Your task to perform on an android device: open sync settings in chrome Image 0: 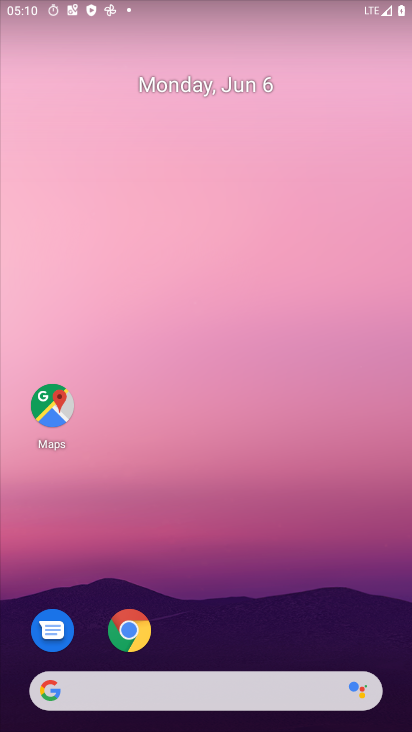
Step 0: drag from (238, 620) to (256, 70)
Your task to perform on an android device: open sync settings in chrome Image 1: 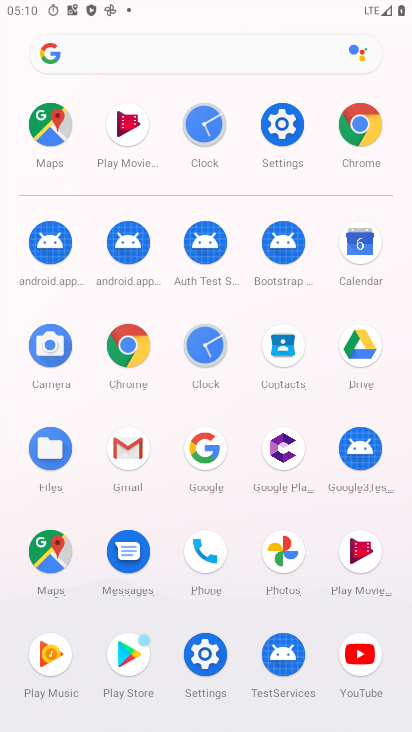
Step 1: click (137, 350)
Your task to perform on an android device: open sync settings in chrome Image 2: 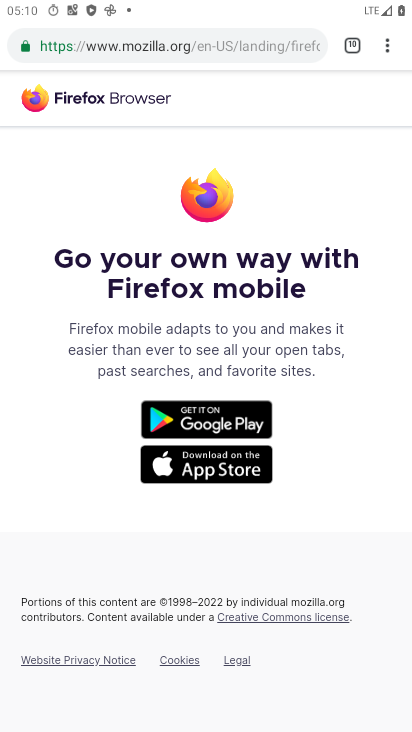
Step 2: drag from (383, 38) to (242, 547)
Your task to perform on an android device: open sync settings in chrome Image 3: 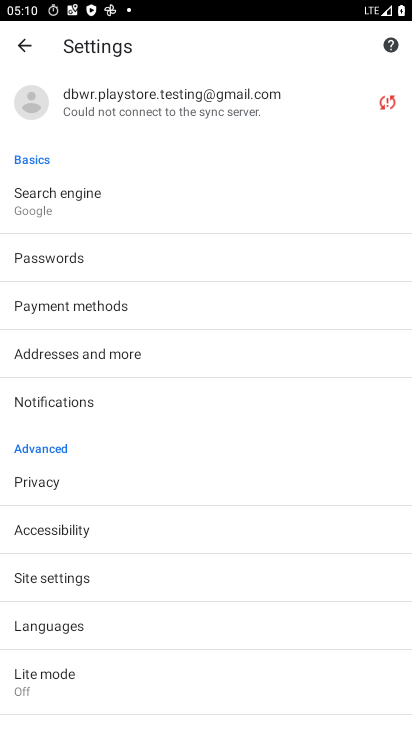
Step 3: click (42, 99)
Your task to perform on an android device: open sync settings in chrome Image 4: 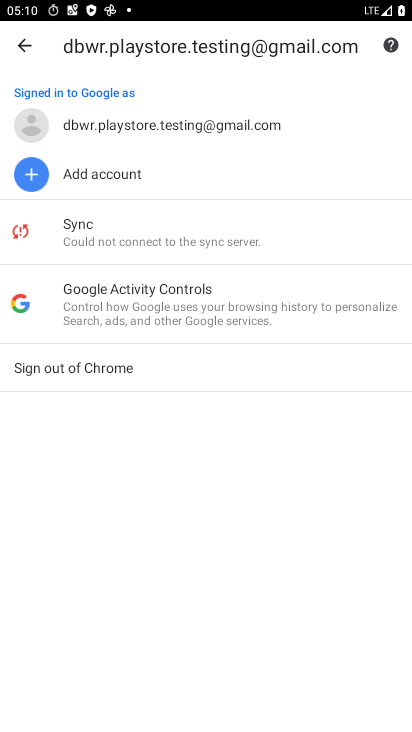
Step 4: click (181, 230)
Your task to perform on an android device: open sync settings in chrome Image 5: 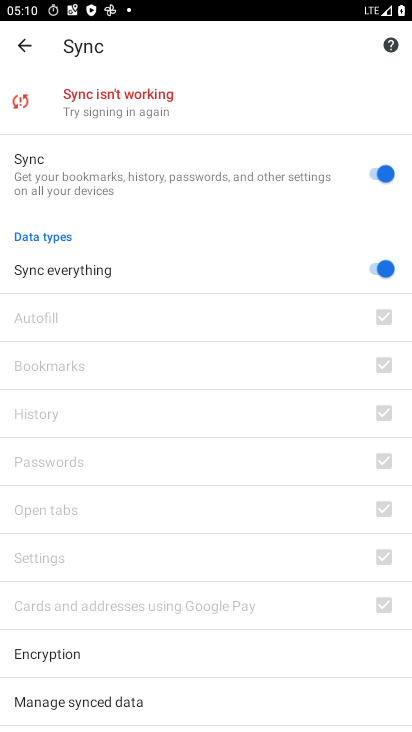
Step 5: task complete